Your task to perform on an android device: Open sound settings Image 0: 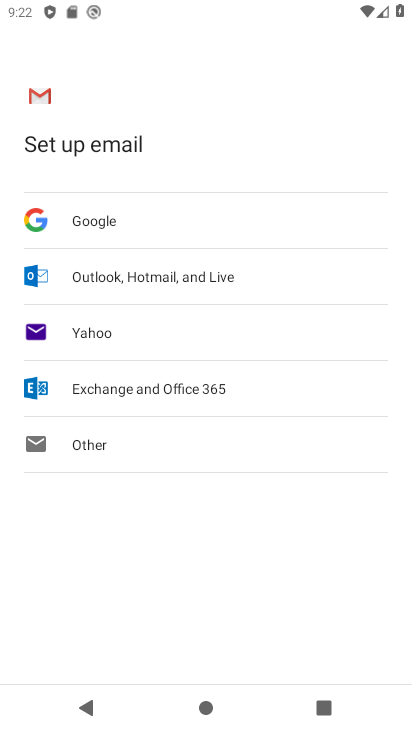
Step 0: press home button
Your task to perform on an android device: Open sound settings Image 1: 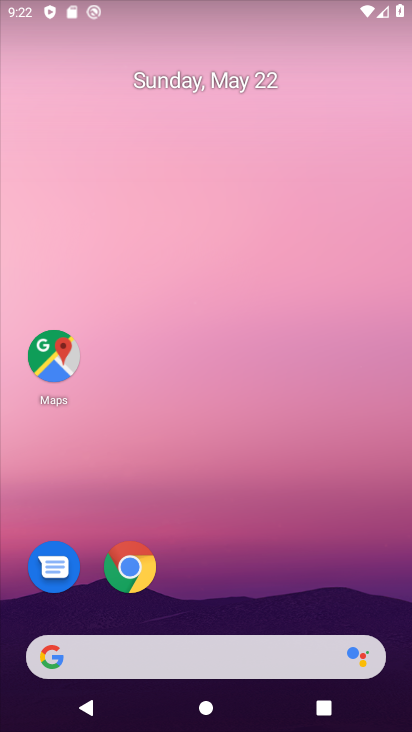
Step 1: drag from (255, 566) to (241, 206)
Your task to perform on an android device: Open sound settings Image 2: 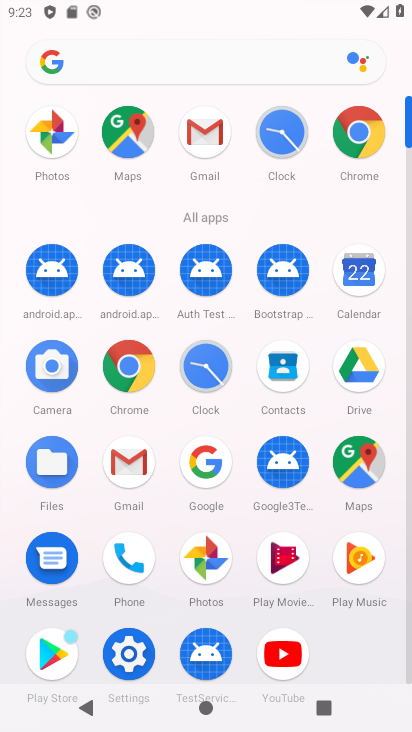
Step 2: click (127, 660)
Your task to perform on an android device: Open sound settings Image 3: 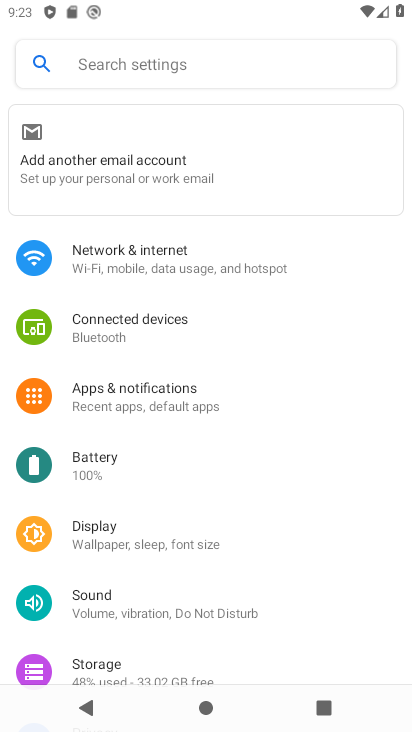
Step 3: click (137, 609)
Your task to perform on an android device: Open sound settings Image 4: 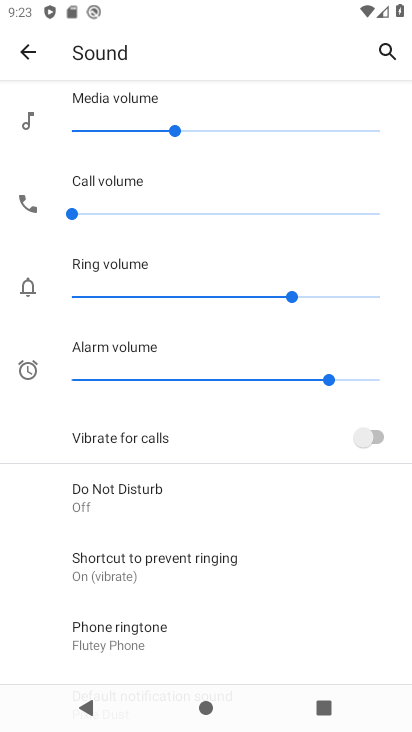
Step 4: task complete